Your task to perform on an android device: clear history in the chrome app Image 0: 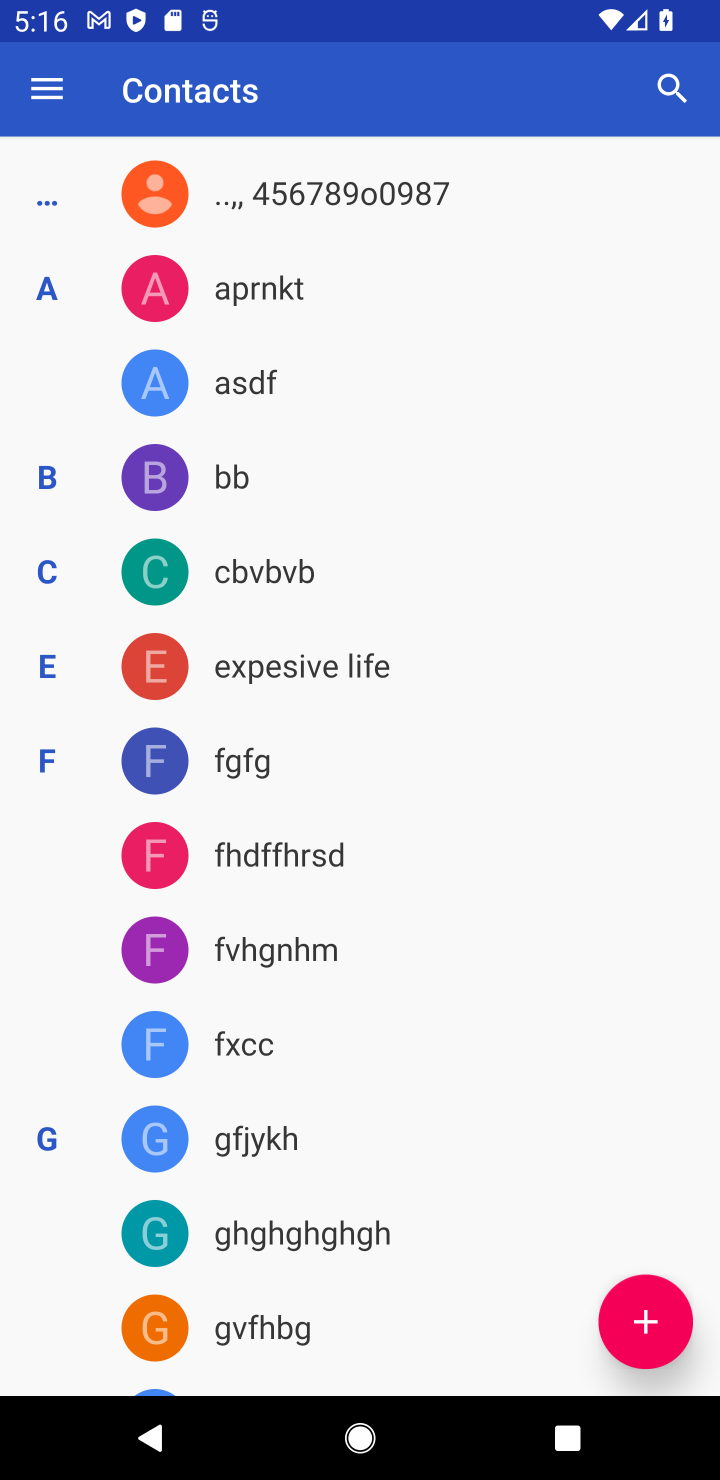
Step 0: press home button
Your task to perform on an android device: clear history in the chrome app Image 1: 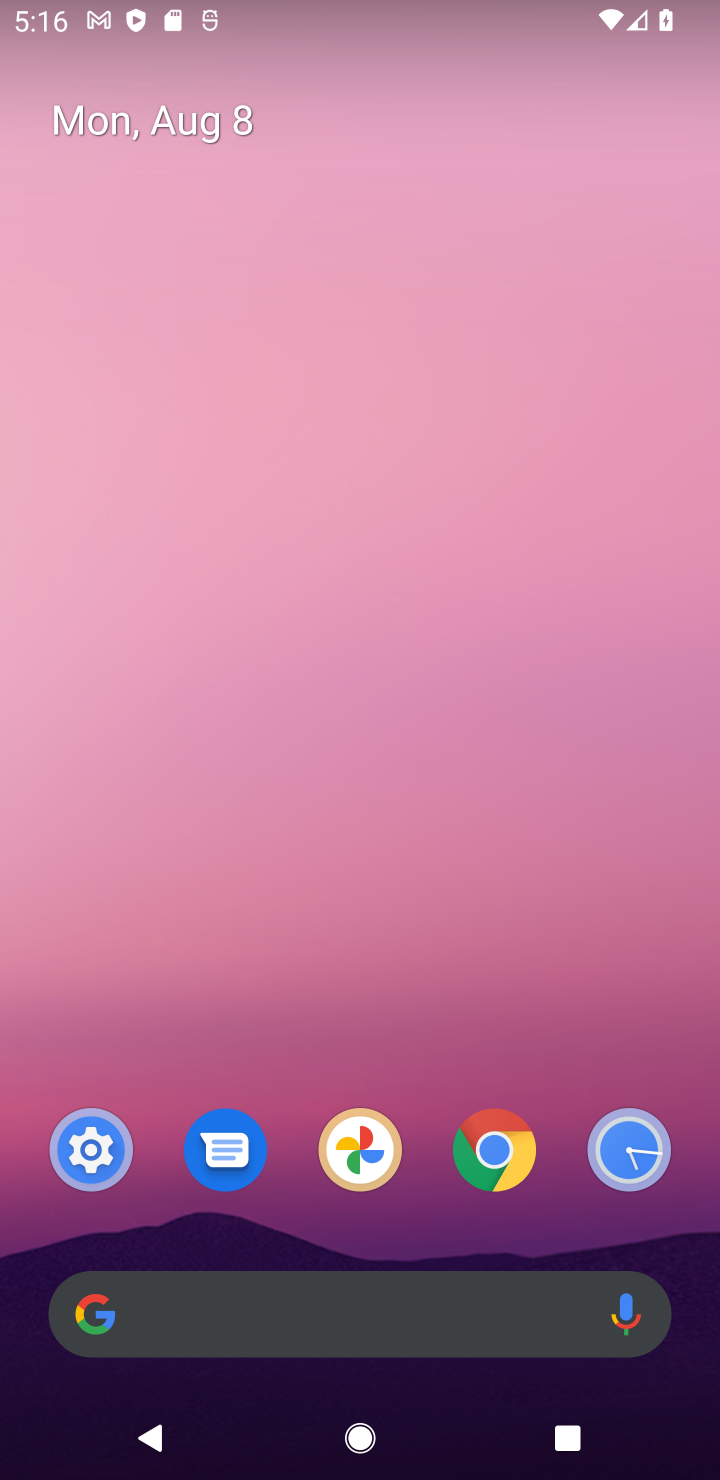
Step 1: click (515, 1123)
Your task to perform on an android device: clear history in the chrome app Image 2: 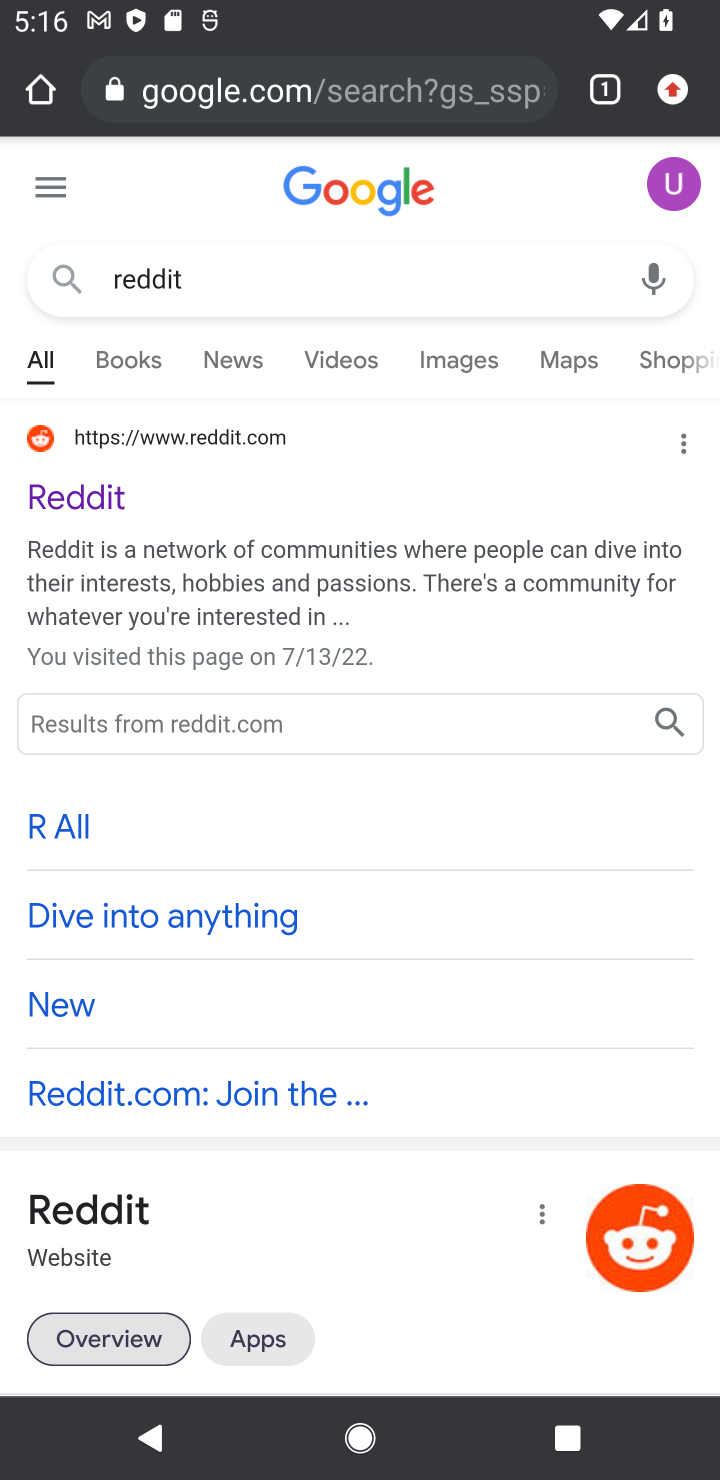
Step 2: task complete